Your task to perform on an android device: Search for good Italian restaurants on Maps Image 0: 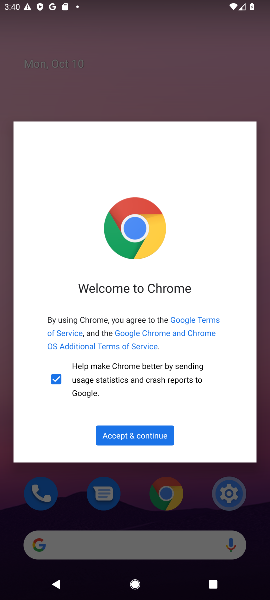
Step 0: press home button
Your task to perform on an android device: Search for good Italian restaurants on Maps Image 1: 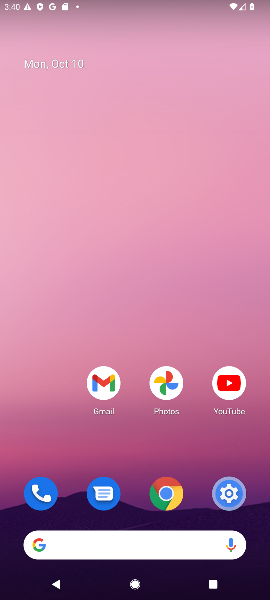
Step 1: drag from (125, 441) to (158, 7)
Your task to perform on an android device: Search for good Italian restaurants on Maps Image 2: 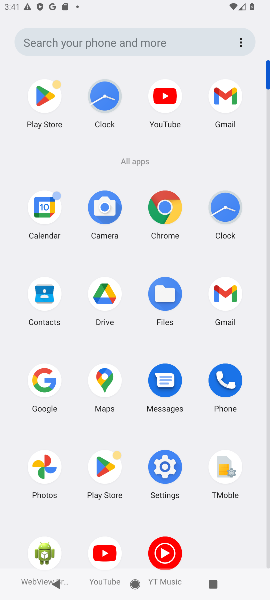
Step 2: click (106, 388)
Your task to perform on an android device: Search for good Italian restaurants on Maps Image 3: 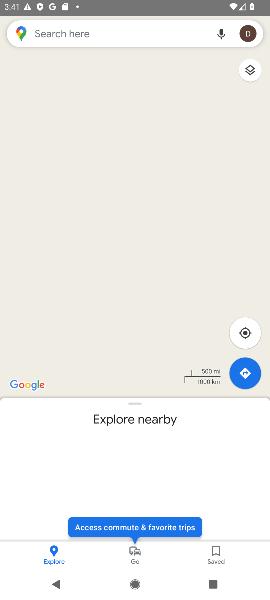
Step 3: click (114, 42)
Your task to perform on an android device: Search for good Italian restaurants on Maps Image 4: 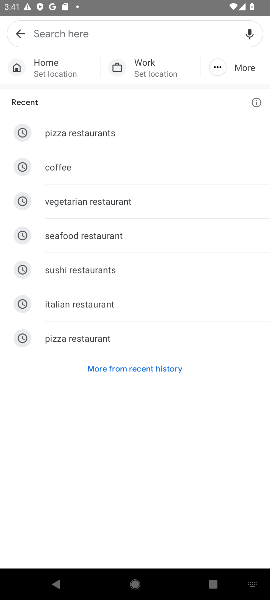
Step 4: type "italian restaurant"
Your task to perform on an android device: Search for good Italian restaurants on Maps Image 5: 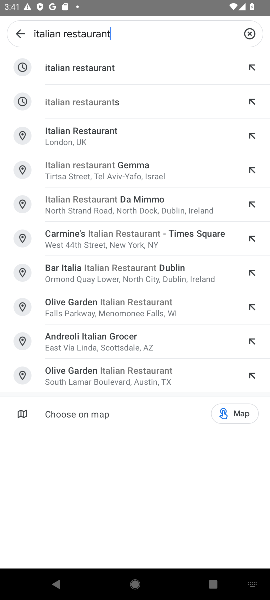
Step 5: click (102, 57)
Your task to perform on an android device: Search for good Italian restaurants on Maps Image 6: 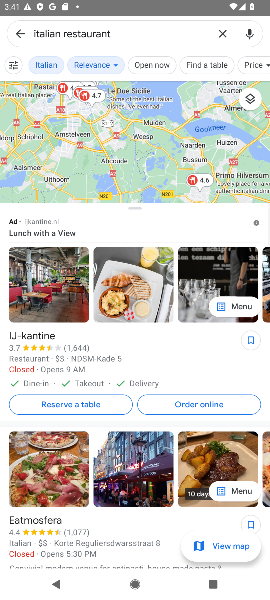
Step 6: task complete